Your task to perform on an android device: Go to display settings Image 0: 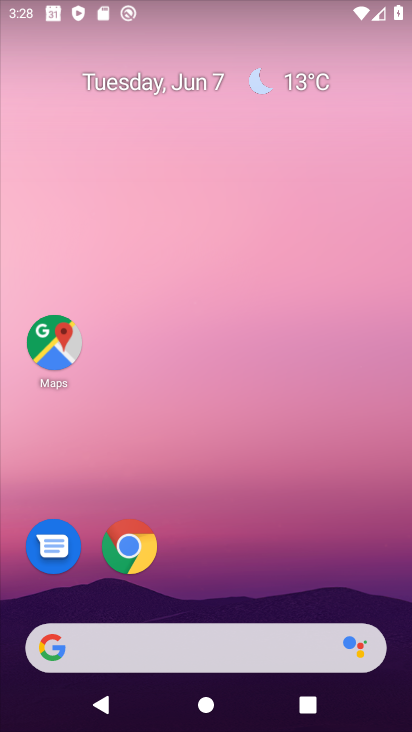
Step 0: drag from (156, 551) to (173, 164)
Your task to perform on an android device: Go to display settings Image 1: 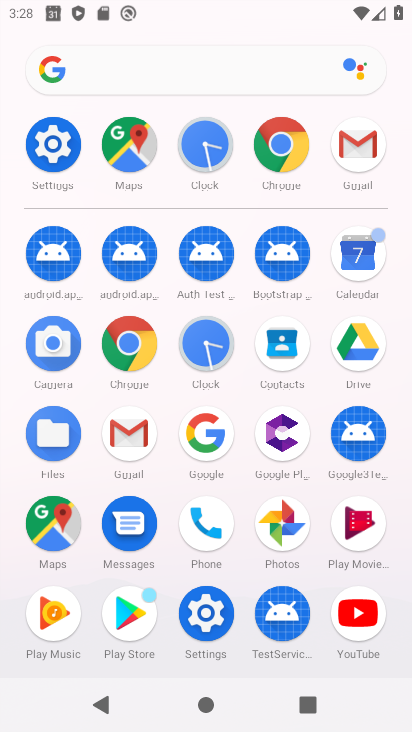
Step 1: click (209, 616)
Your task to perform on an android device: Go to display settings Image 2: 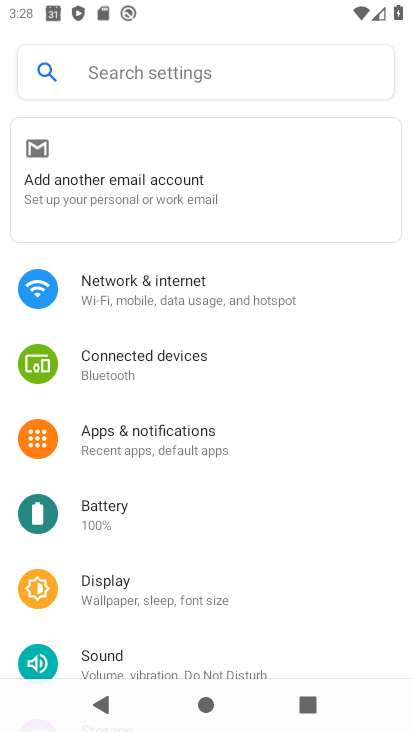
Step 2: click (82, 579)
Your task to perform on an android device: Go to display settings Image 3: 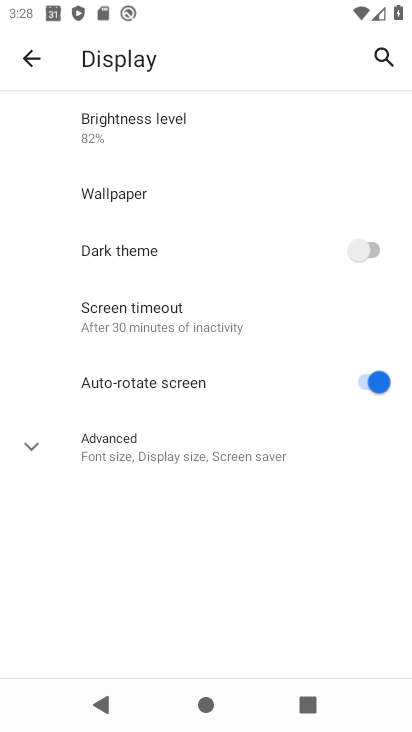
Step 3: task complete